Your task to perform on an android device: turn on notifications settings in the gmail app Image 0: 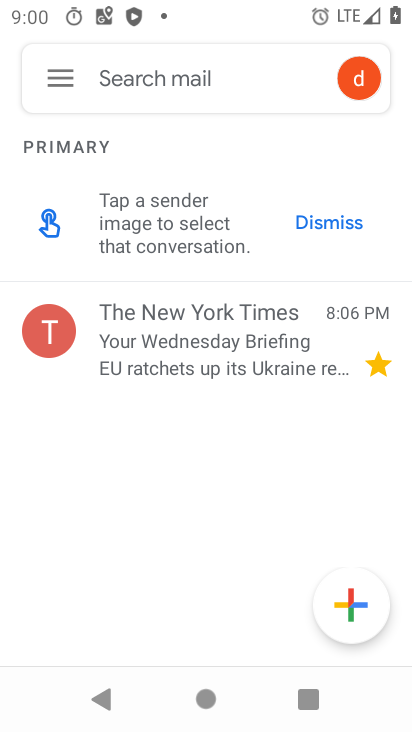
Step 0: press home button
Your task to perform on an android device: turn on notifications settings in the gmail app Image 1: 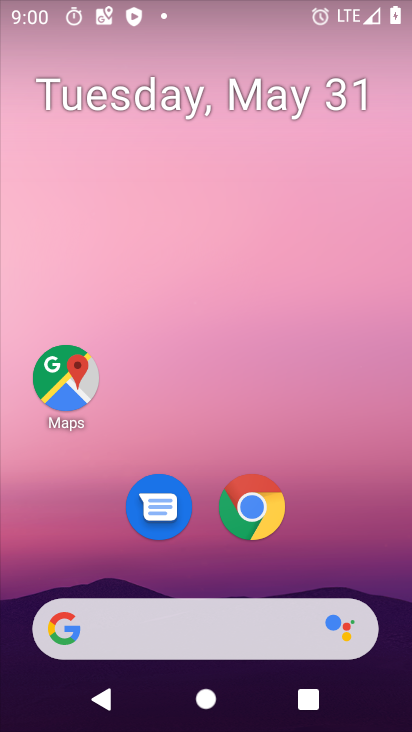
Step 1: drag from (22, 607) to (201, 184)
Your task to perform on an android device: turn on notifications settings in the gmail app Image 2: 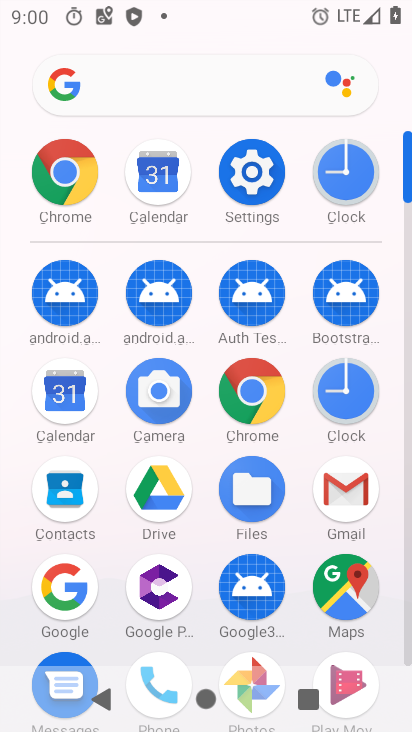
Step 2: click (339, 508)
Your task to perform on an android device: turn on notifications settings in the gmail app Image 3: 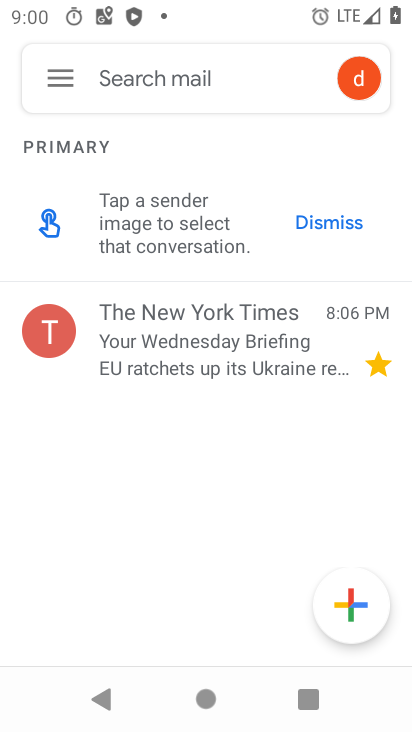
Step 3: click (47, 72)
Your task to perform on an android device: turn on notifications settings in the gmail app Image 4: 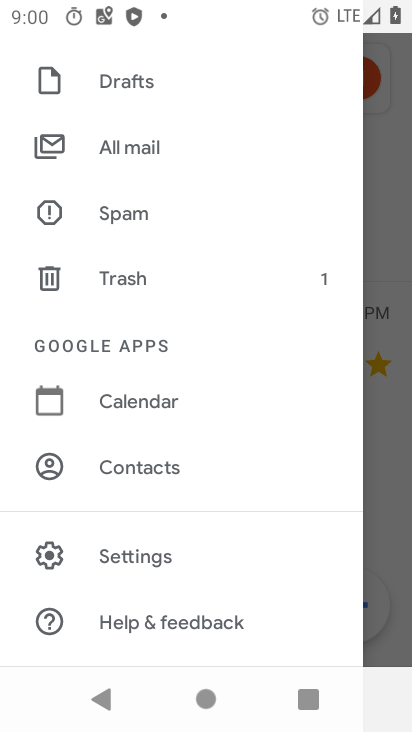
Step 4: click (118, 552)
Your task to perform on an android device: turn on notifications settings in the gmail app Image 5: 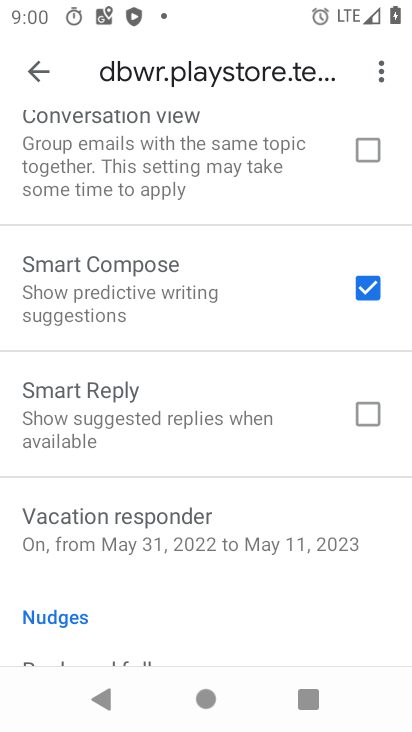
Step 5: click (34, 69)
Your task to perform on an android device: turn on notifications settings in the gmail app Image 6: 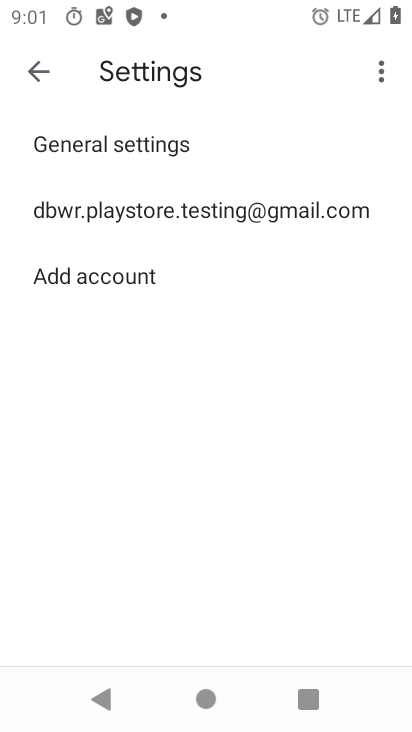
Step 6: click (156, 214)
Your task to perform on an android device: turn on notifications settings in the gmail app Image 7: 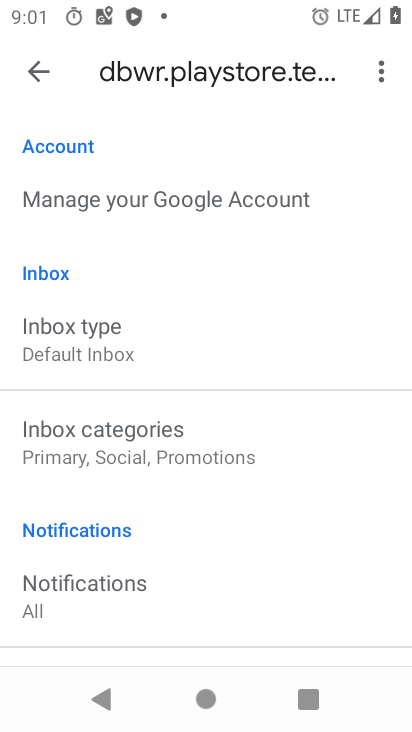
Step 7: drag from (12, 574) to (194, 149)
Your task to perform on an android device: turn on notifications settings in the gmail app Image 8: 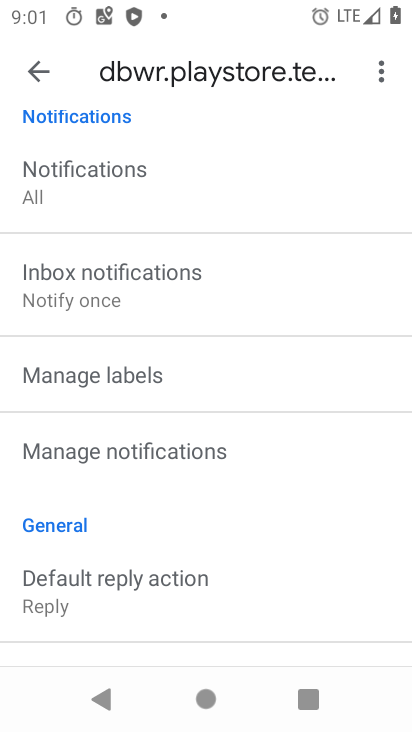
Step 8: click (90, 455)
Your task to perform on an android device: turn on notifications settings in the gmail app Image 9: 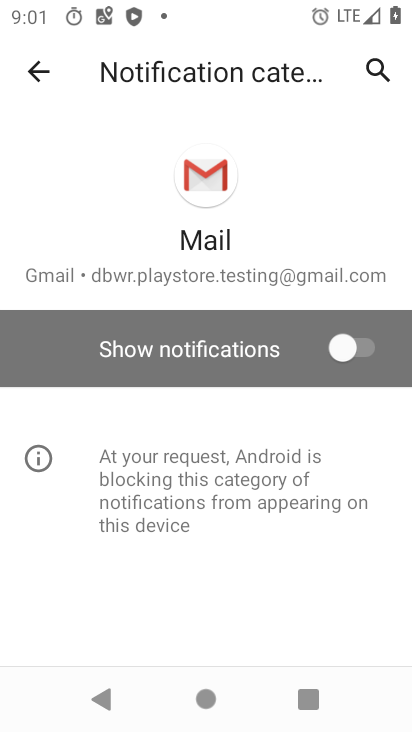
Step 9: click (337, 336)
Your task to perform on an android device: turn on notifications settings in the gmail app Image 10: 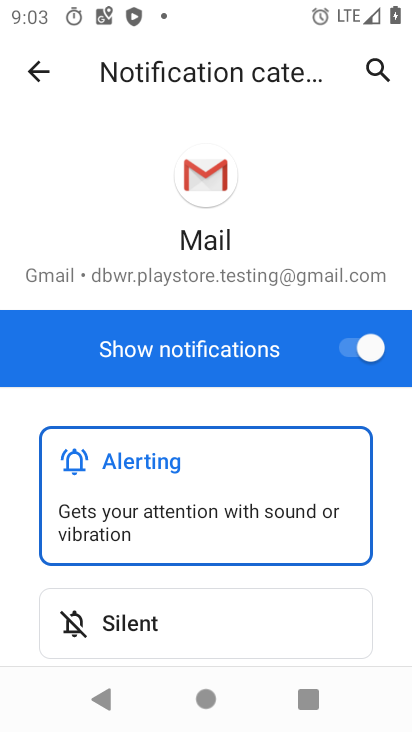
Step 10: task complete